Your task to perform on an android device: check out phone information Image 0: 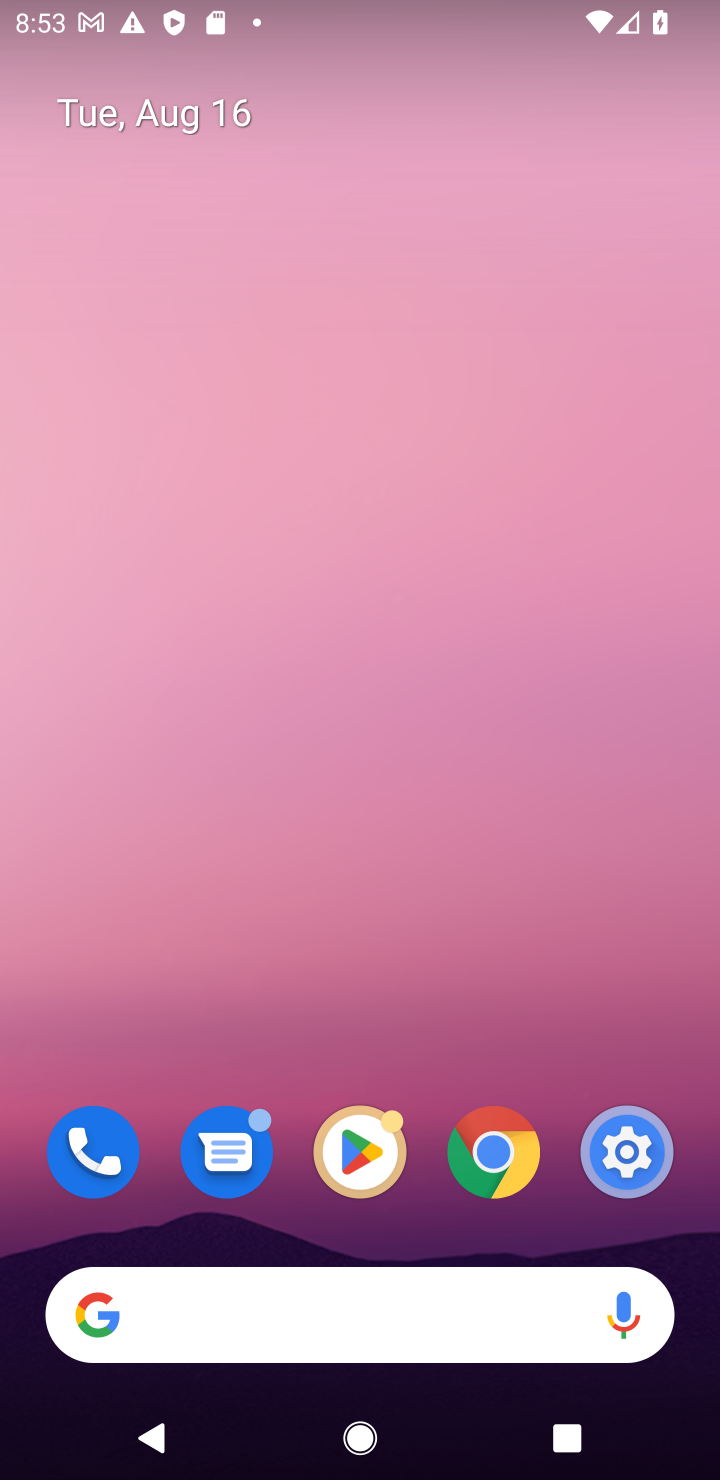
Step 0: drag from (330, 1292) to (331, 274)
Your task to perform on an android device: check out phone information Image 1: 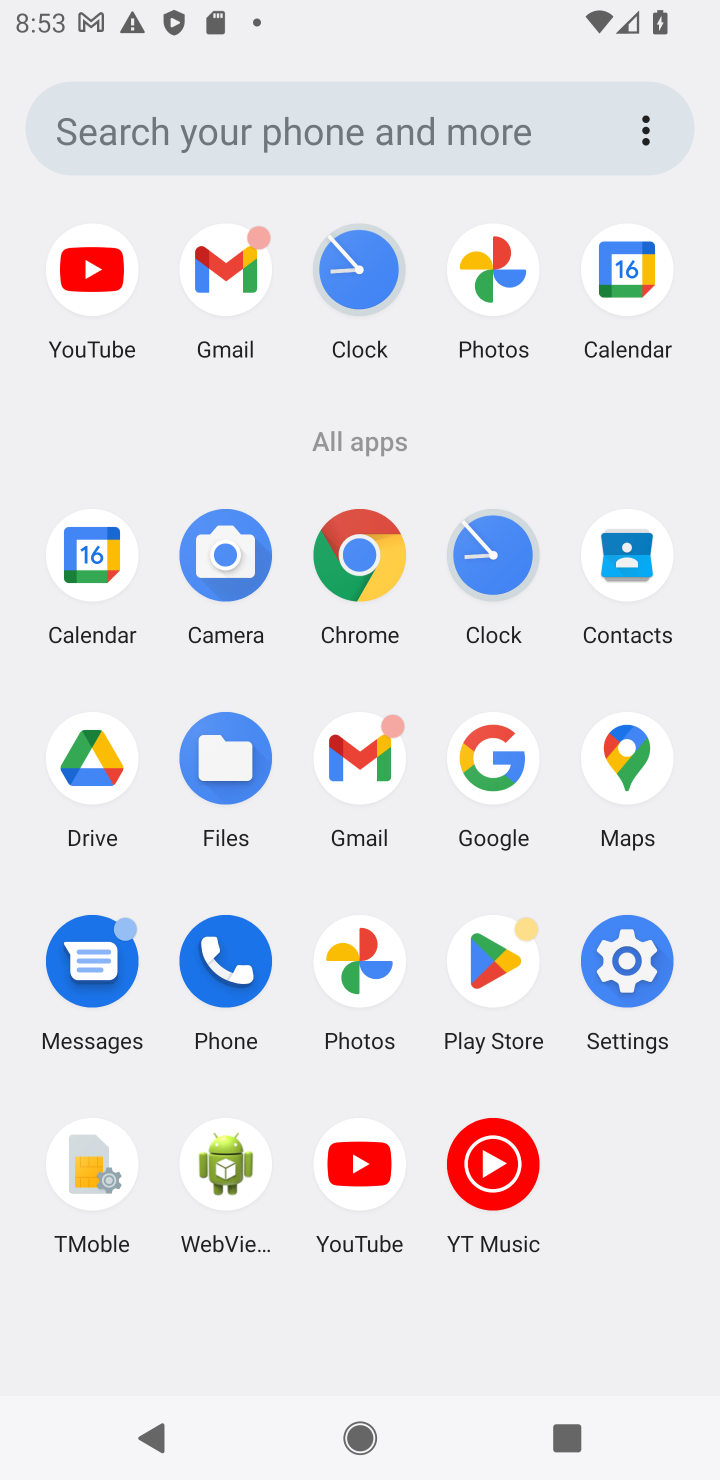
Step 1: click (637, 952)
Your task to perform on an android device: check out phone information Image 2: 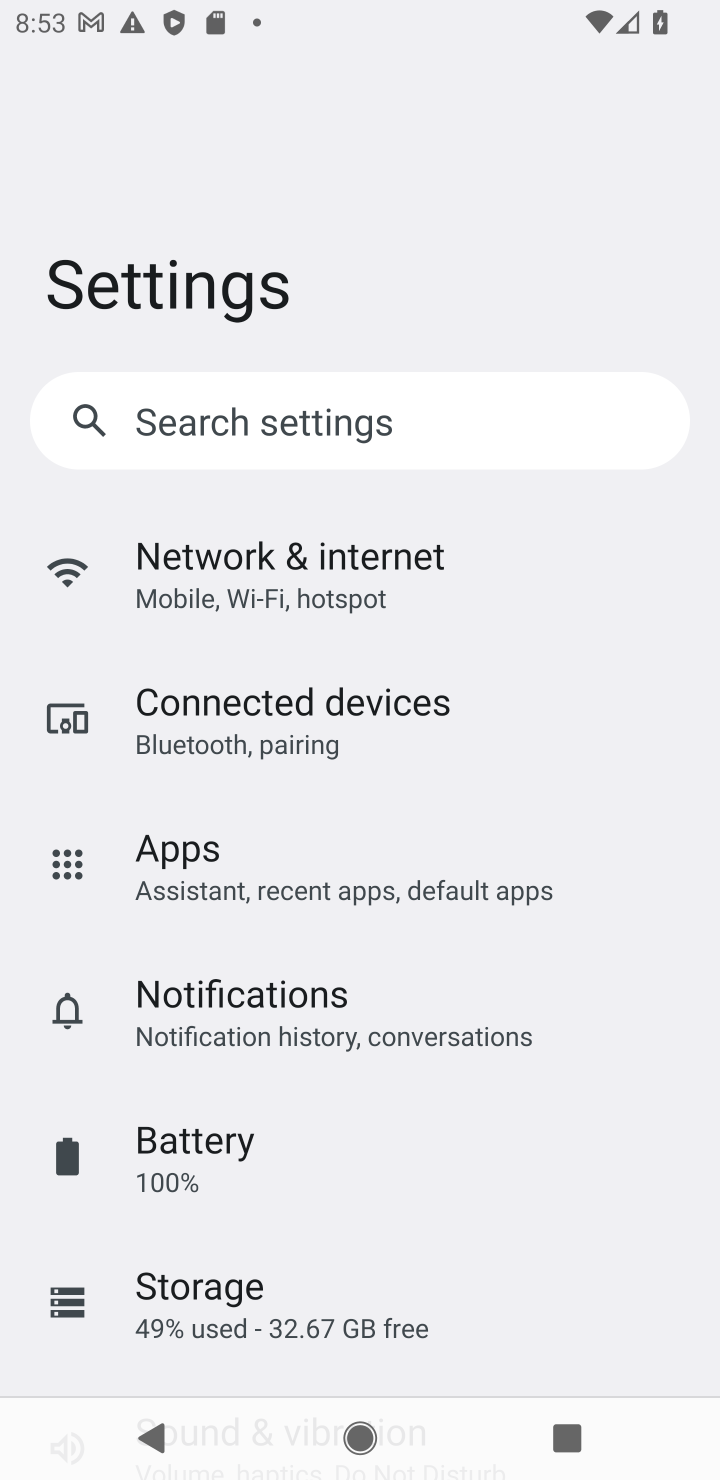
Step 2: drag from (309, 1210) to (439, 10)
Your task to perform on an android device: check out phone information Image 3: 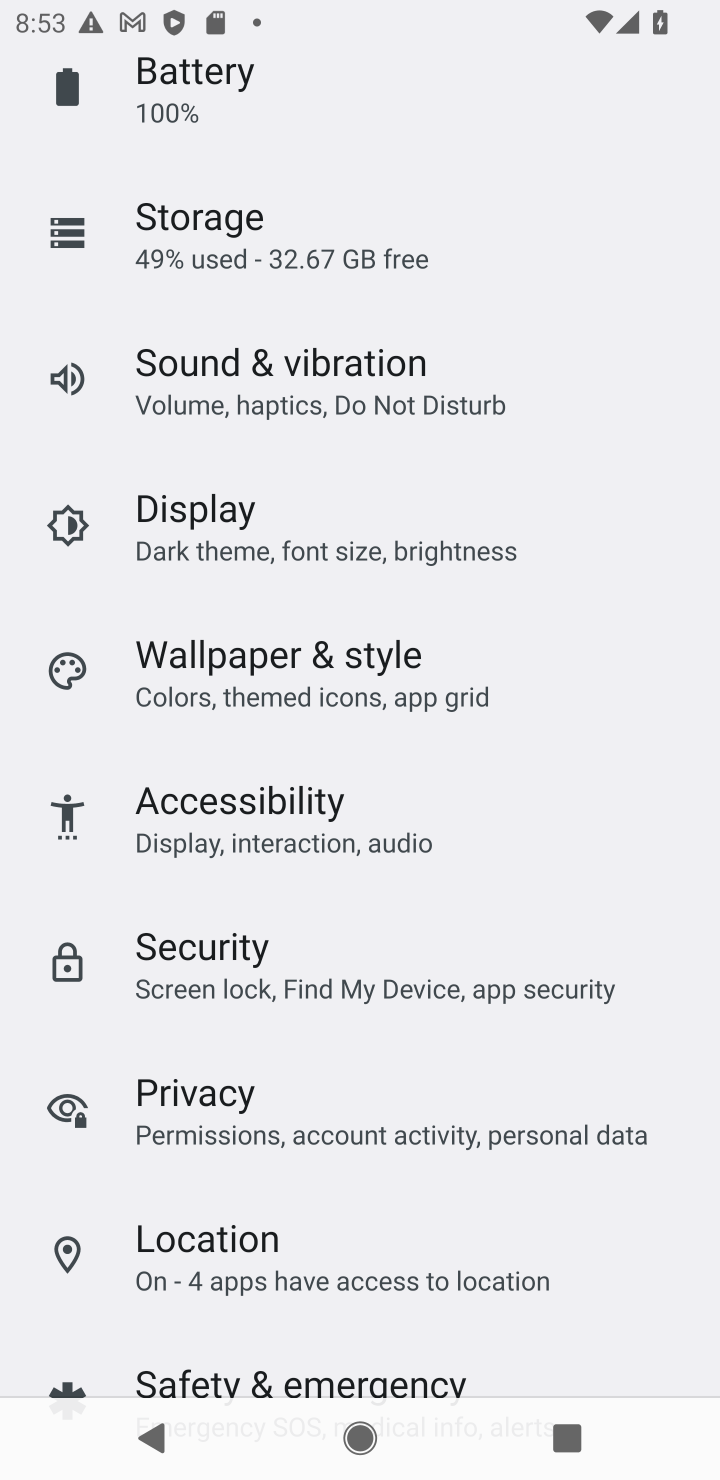
Step 3: drag from (325, 1266) to (528, 179)
Your task to perform on an android device: check out phone information Image 4: 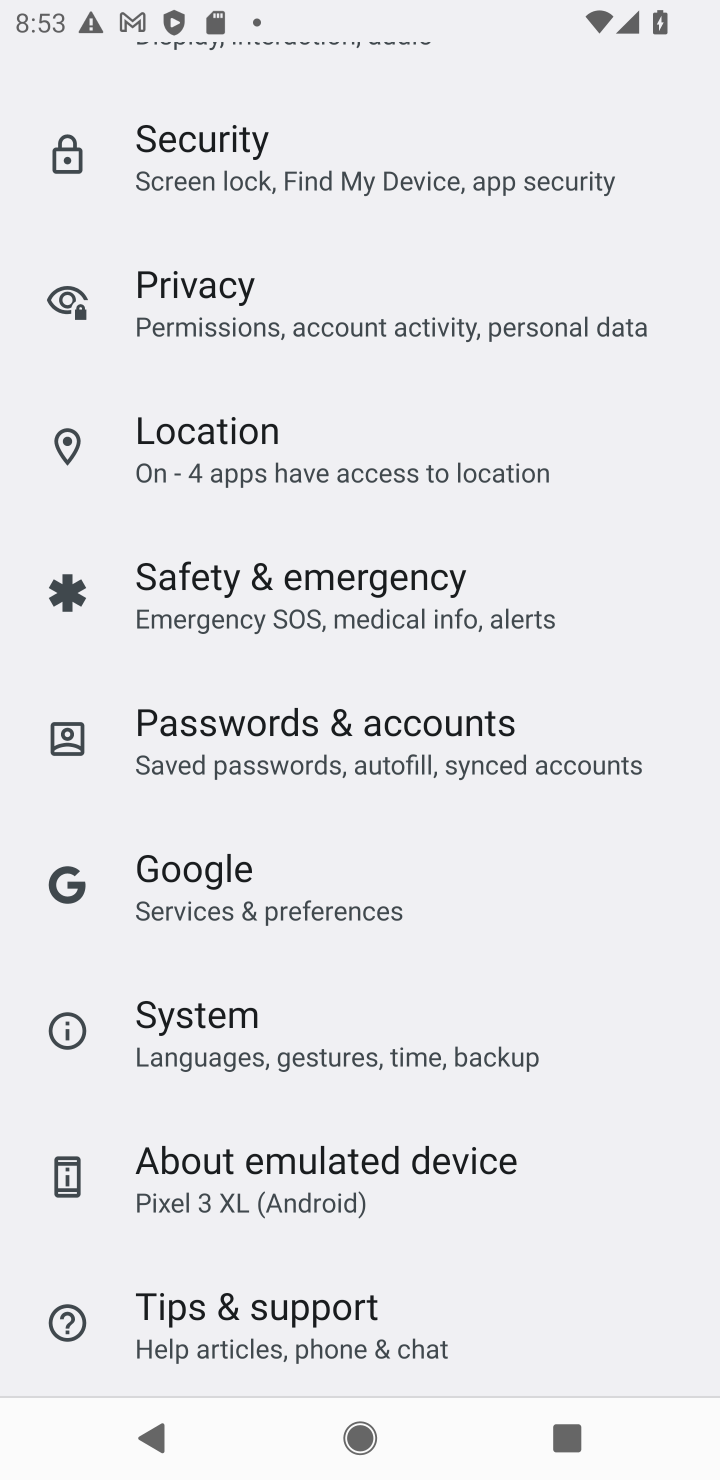
Step 4: drag from (278, 1210) to (395, 649)
Your task to perform on an android device: check out phone information Image 5: 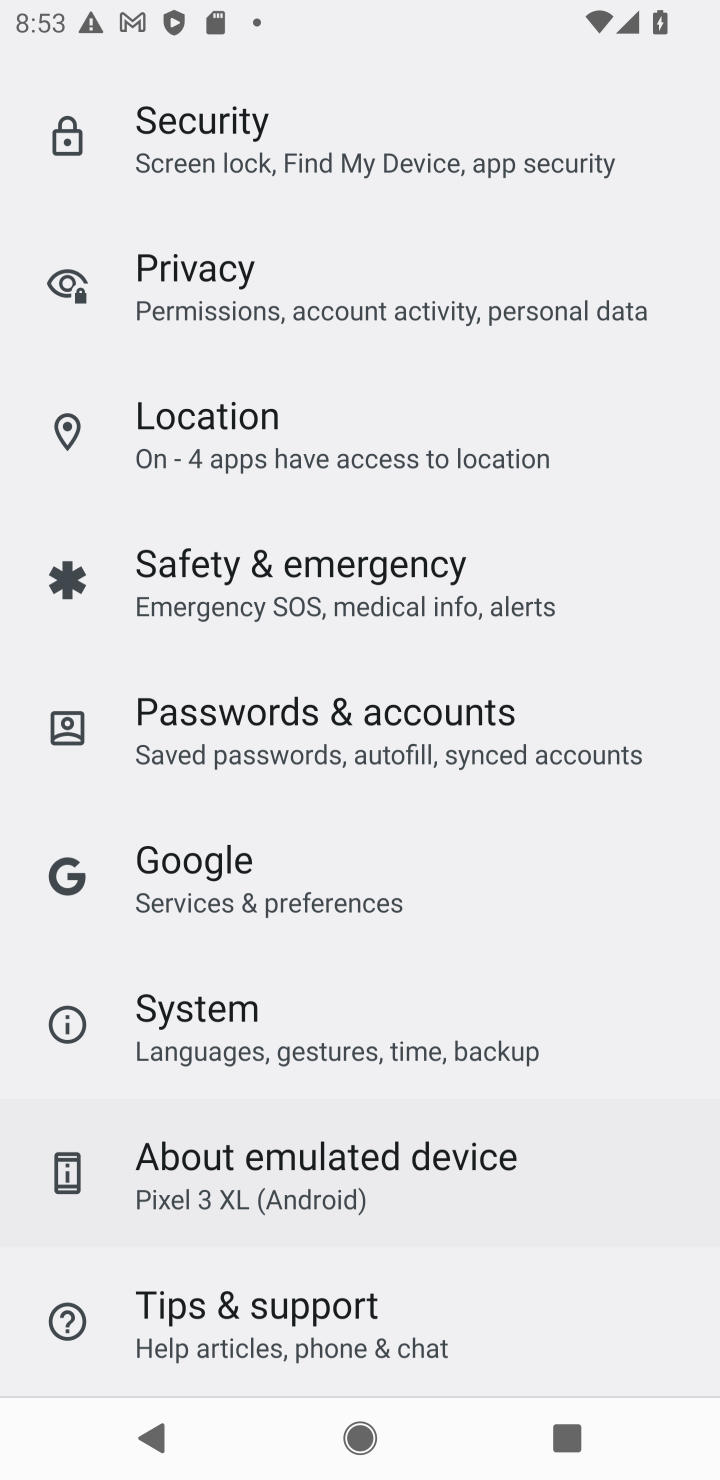
Step 5: click (316, 1134)
Your task to perform on an android device: check out phone information Image 6: 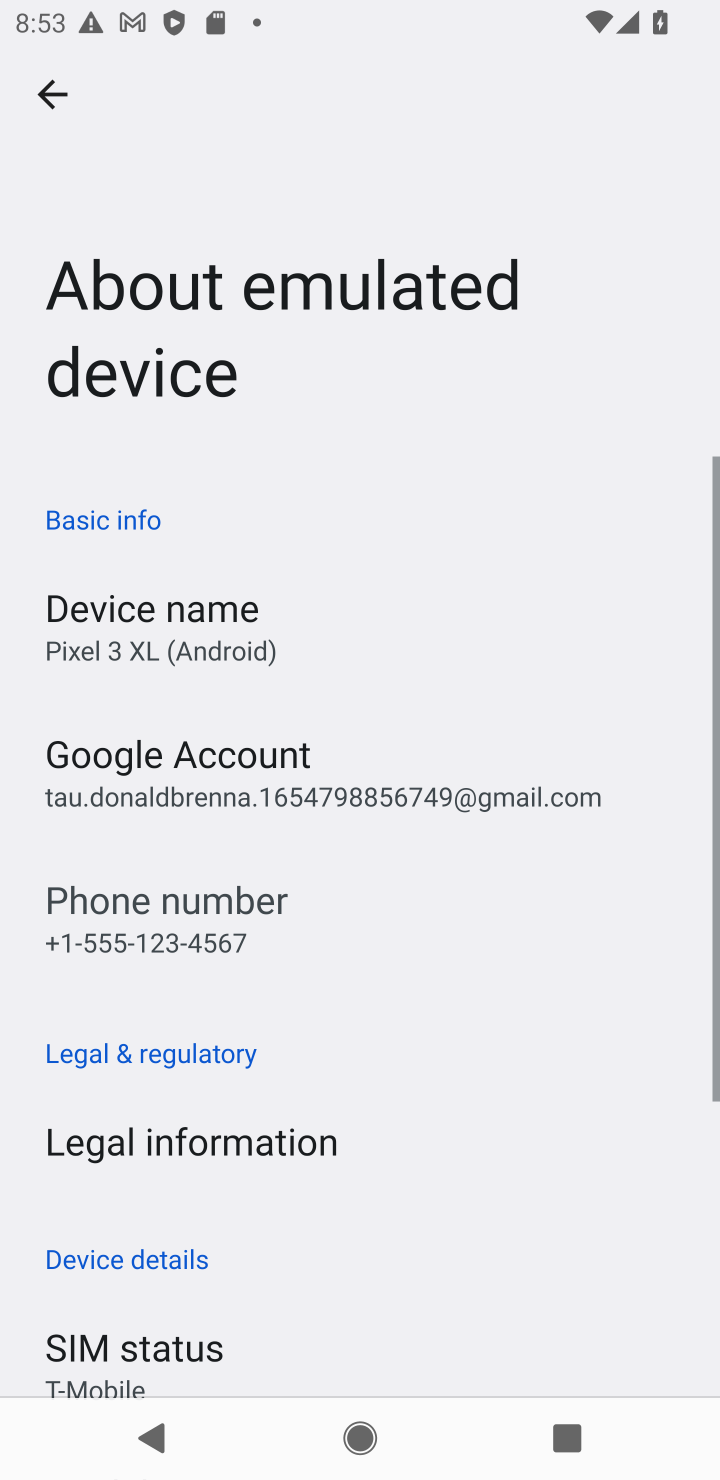
Step 6: click (316, 1134)
Your task to perform on an android device: check out phone information Image 7: 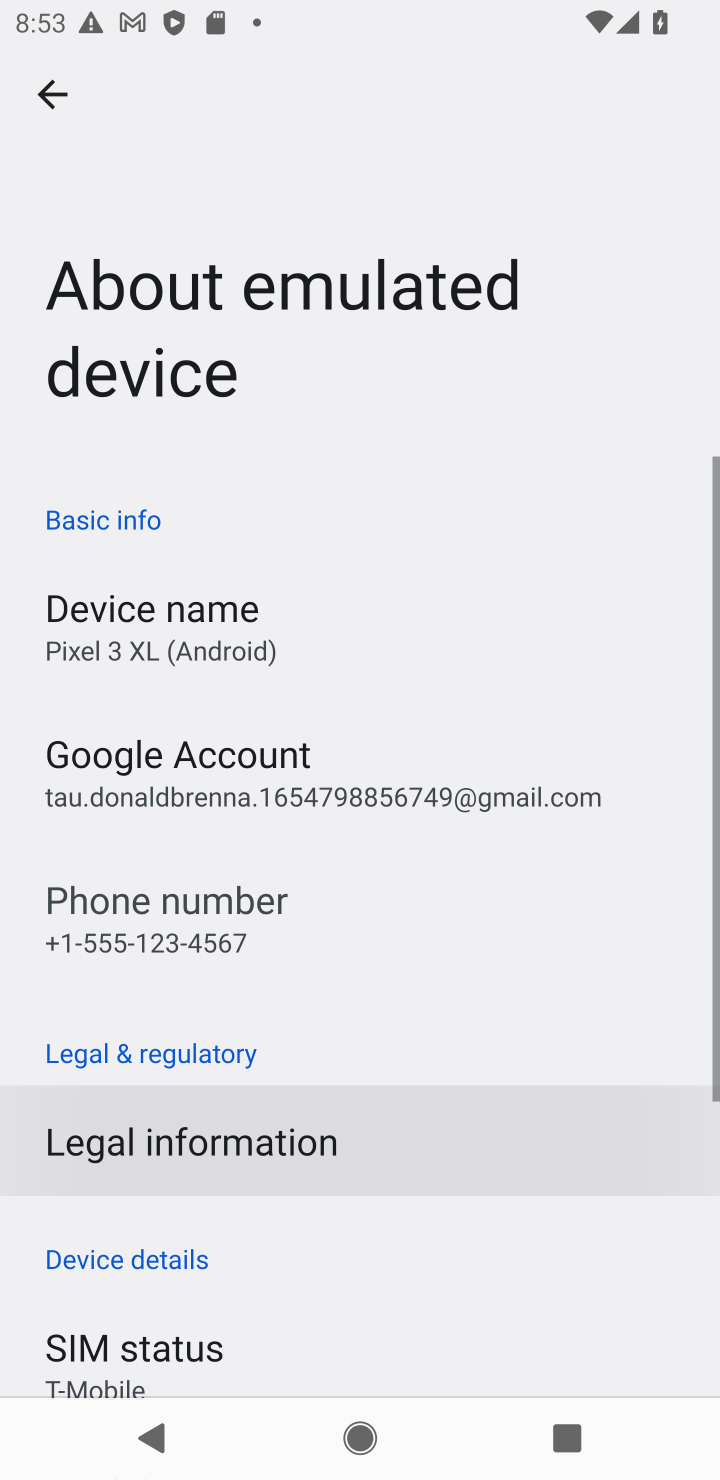
Step 7: task complete